Your task to perform on an android device: What's the weather going to be this weekend? Image 0: 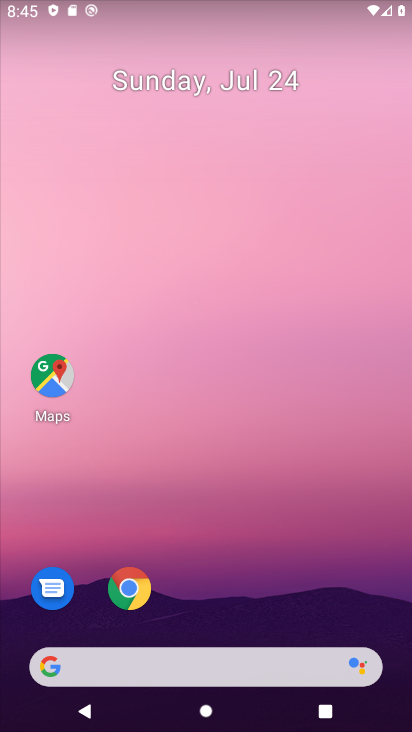
Step 0: drag from (256, 662) to (295, 50)
Your task to perform on an android device: What's the weather going to be this weekend? Image 1: 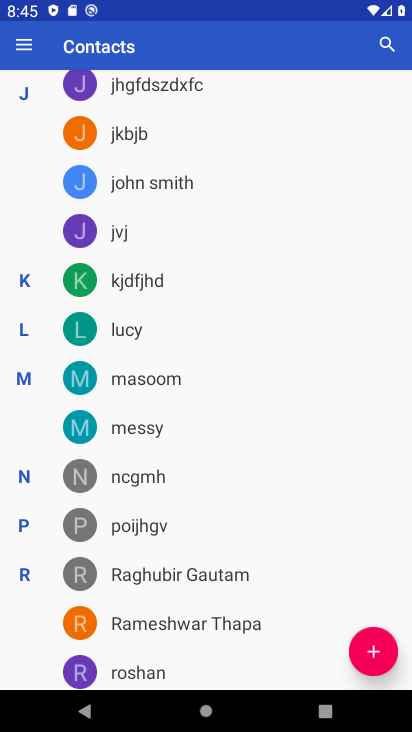
Step 1: press home button
Your task to perform on an android device: What's the weather going to be this weekend? Image 2: 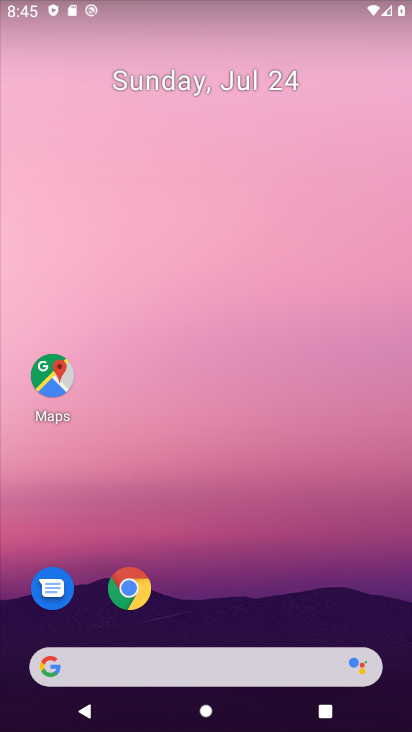
Step 2: drag from (126, 712) to (297, 26)
Your task to perform on an android device: What's the weather going to be this weekend? Image 3: 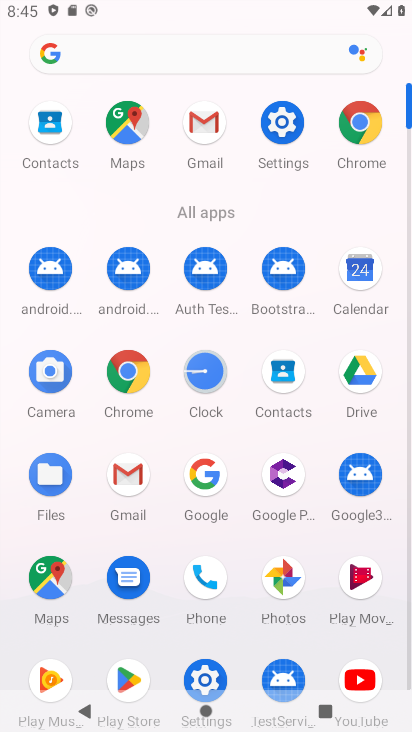
Step 3: drag from (397, 355) to (75, 649)
Your task to perform on an android device: What's the weather going to be this weekend? Image 4: 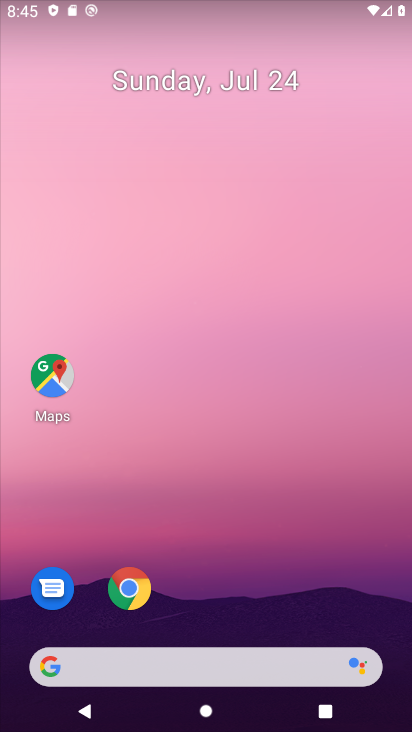
Step 4: click (239, 669)
Your task to perform on an android device: What's the weather going to be this weekend? Image 5: 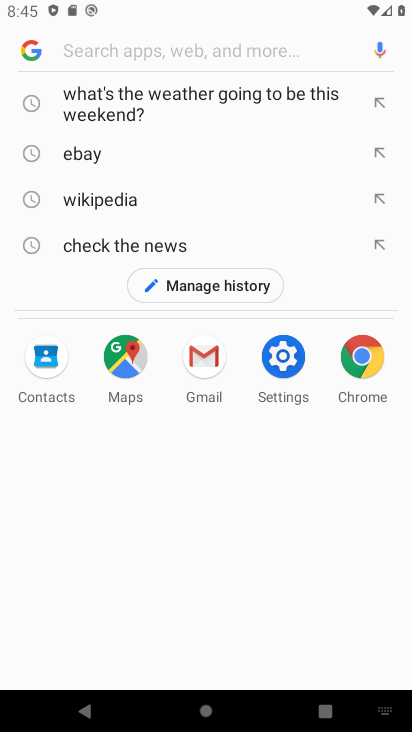
Step 5: type " What's the weather going to be this weekend?"
Your task to perform on an android device: What's the weather going to be this weekend? Image 6: 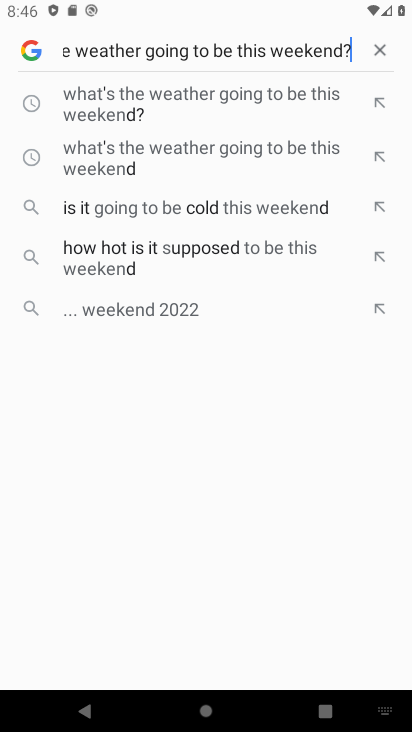
Step 6: press enter
Your task to perform on an android device: What's the weather going to be this weekend? Image 7: 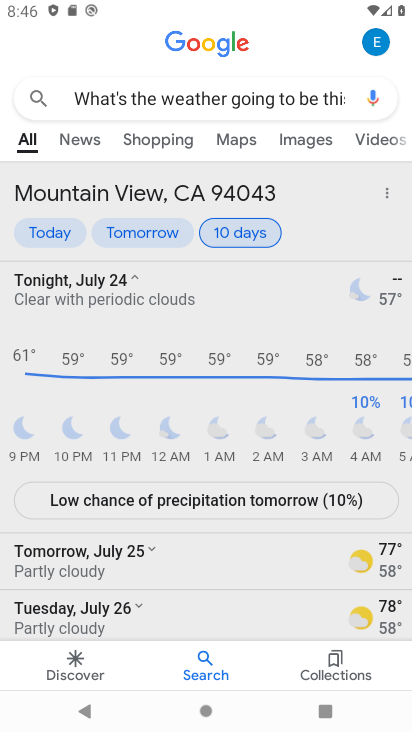
Step 7: task complete